Your task to perform on an android device: Open battery settings Image 0: 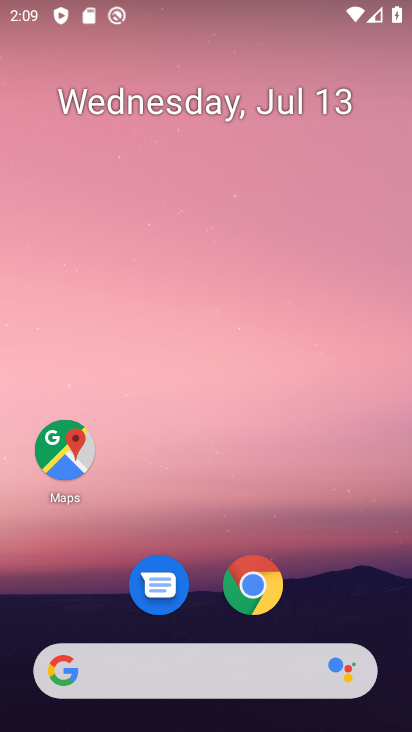
Step 0: drag from (188, 677) to (295, 112)
Your task to perform on an android device: Open battery settings Image 1: 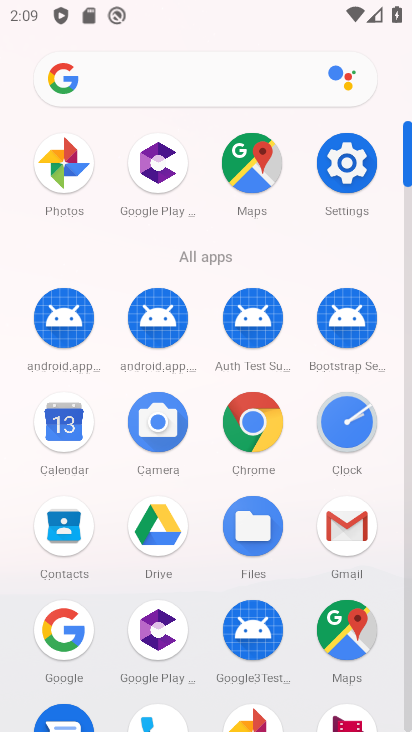
Step 1: click (352, 176)
Your task to perform on an android device: Open battery settings Image 2: 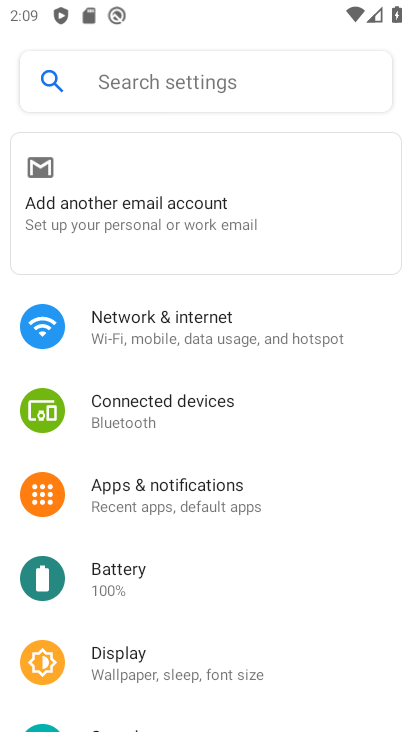
Step 2: click (120, 571)
Your task to perform on an android device: Open battery settings Image 3: 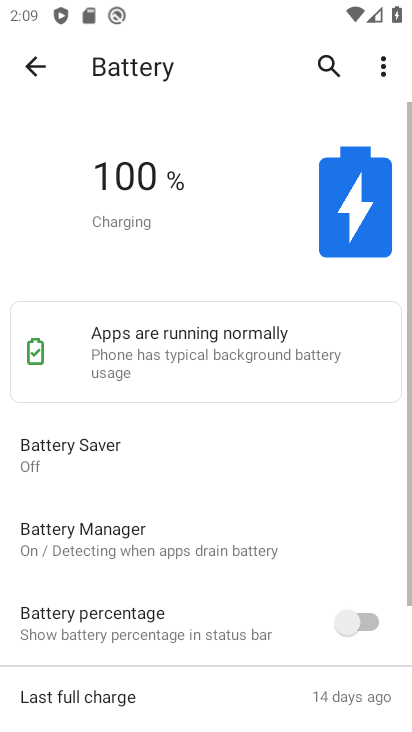
Step 3: task complete